Your task to perform on an android device: Search for dell xps on target.com, select the first entry, add it to the cart, then select checkout. Image 0: 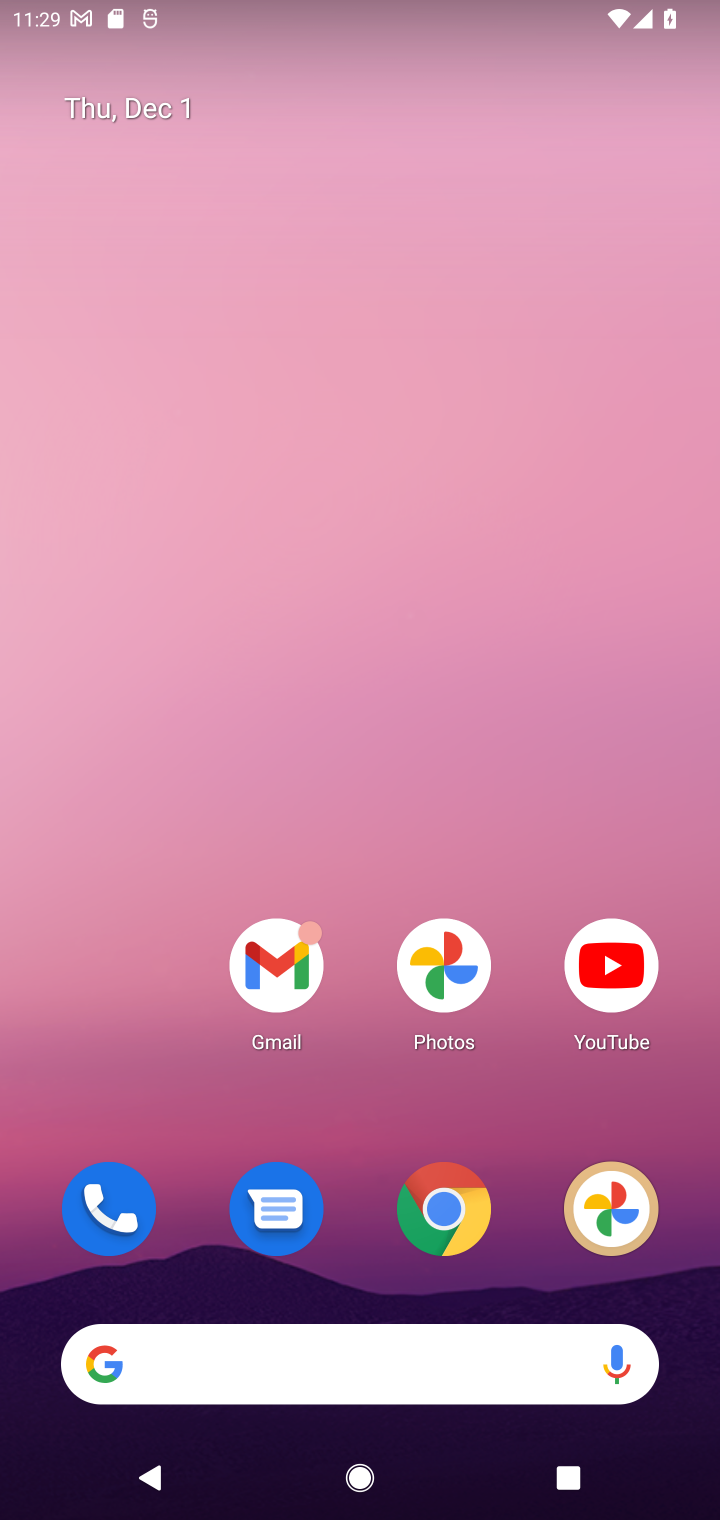
Step 0: task complete